Your task to perform on an android device: What's the weather? Image 0: 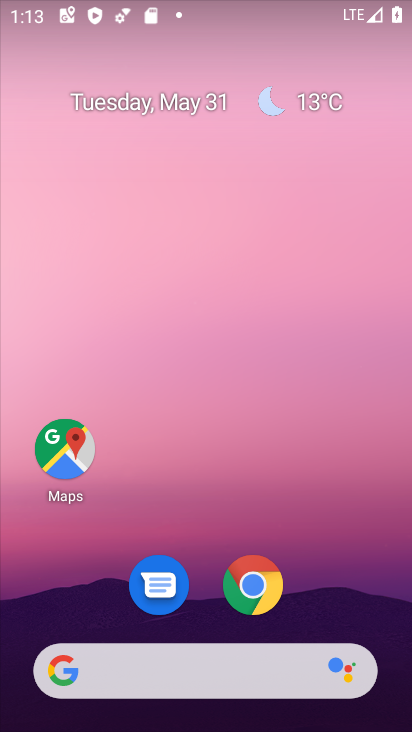
Step 0: click (260, 666)
Your task to perform on an android device: What's the weather? Image 1: 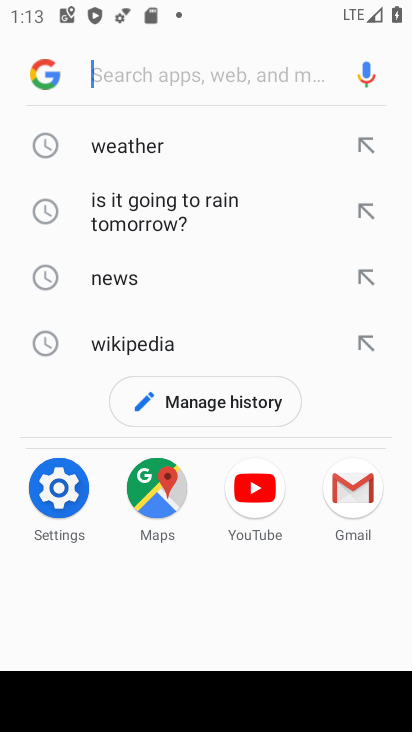
Step 1: click (140, 146)
Your task to perform on an android device: What's the weather? Image 2: 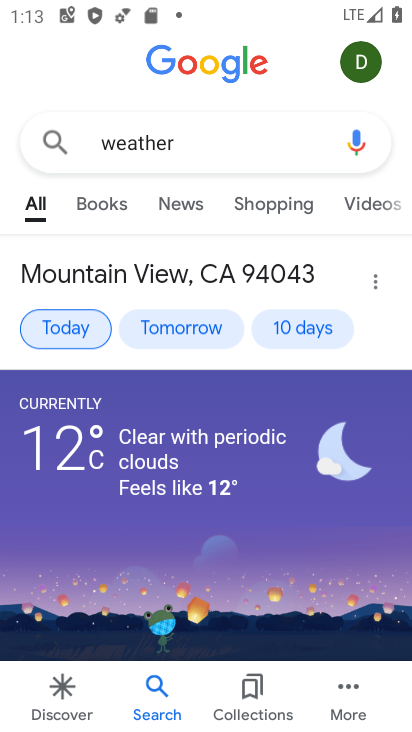
Step 2: click (52, 322)
Your task to perform on an android device: What's the weather? Image 3: 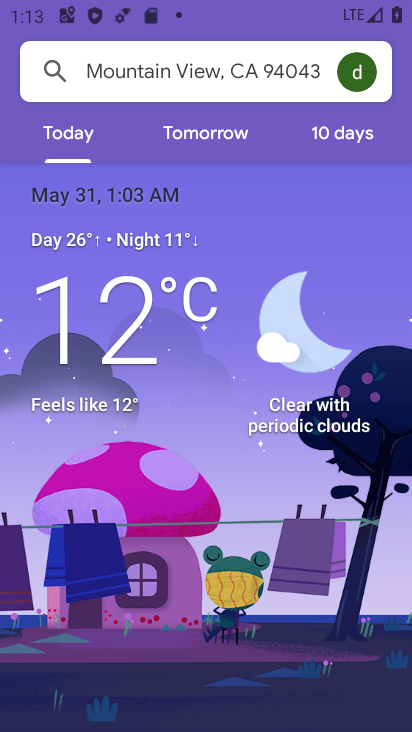
Step 3: task complete